Your task to perform on an android device: Open my contact list Image 0: 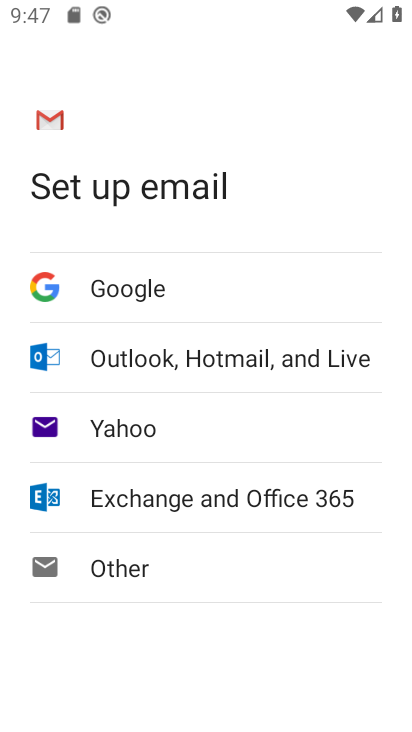
Step 0: press home button
Your task to perform on an android device: Open my contact list Image 1: 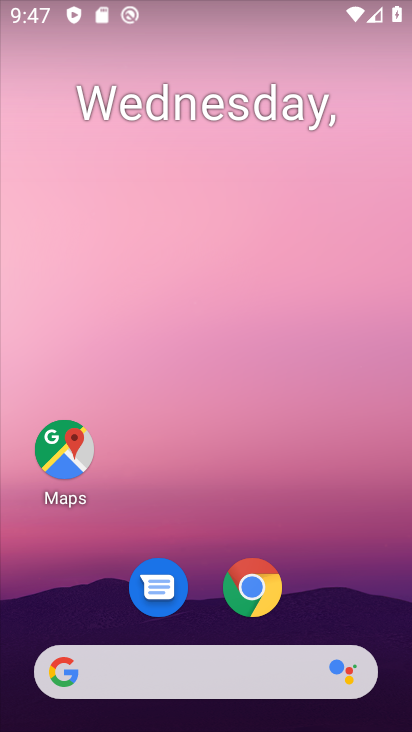
Step 1: drag from (190, 394) to (99, 30)
Your task to perform on an android device: Open my contact list Image 2: 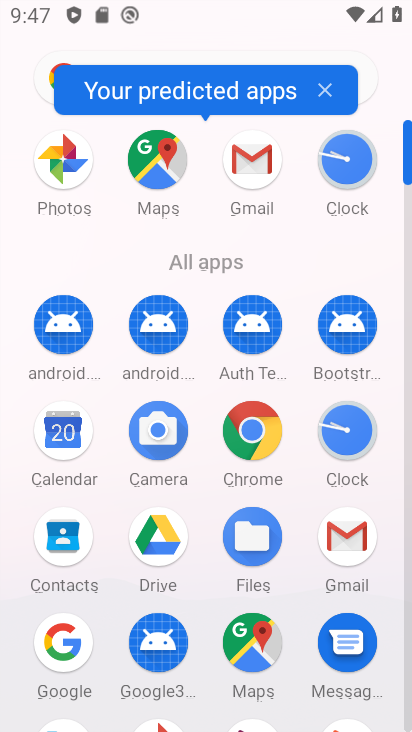
Step 2: click (69, 558)
Your task to perform on an android device: Open my contact list Image 3: 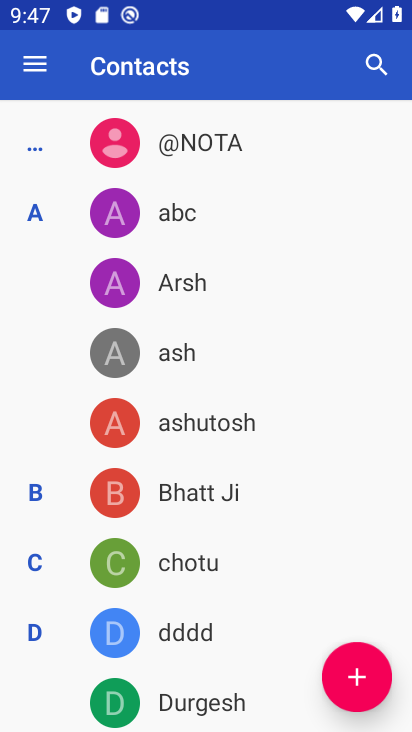
Step 3: click (168, 194)
Your task to perform on an android device: Open my contact list Image 4: 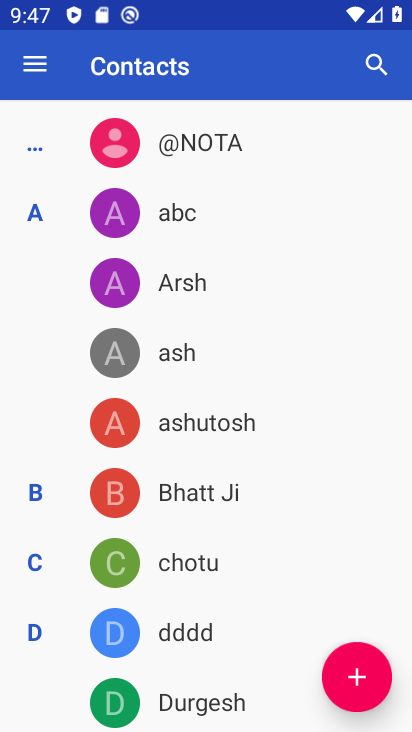
Step 4: task complete